Your task to perform on an android device: Open ESPN.com Image 0: 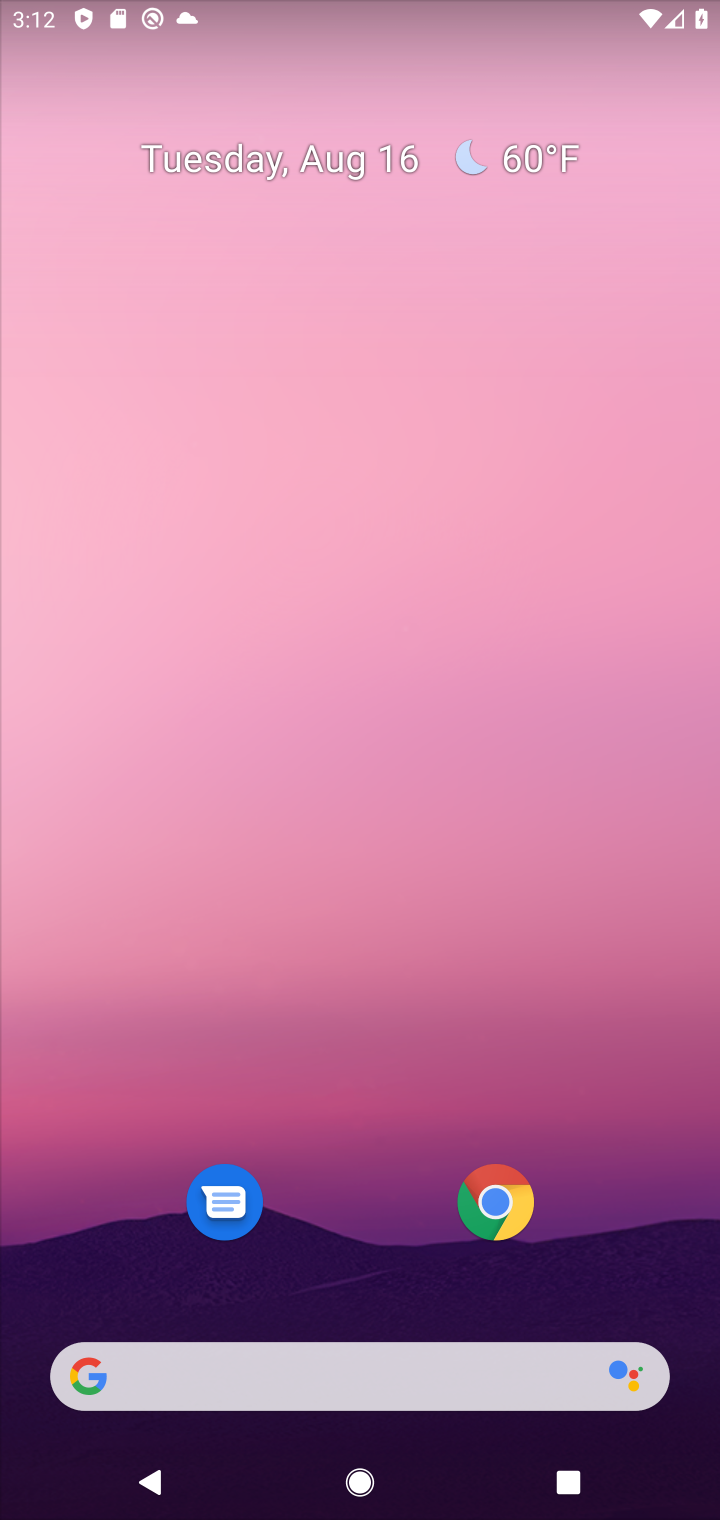
Step 0: drag from (403, 983) to (389, 312)
Your task to perform on an android device: Open ESPN.com Image 1: 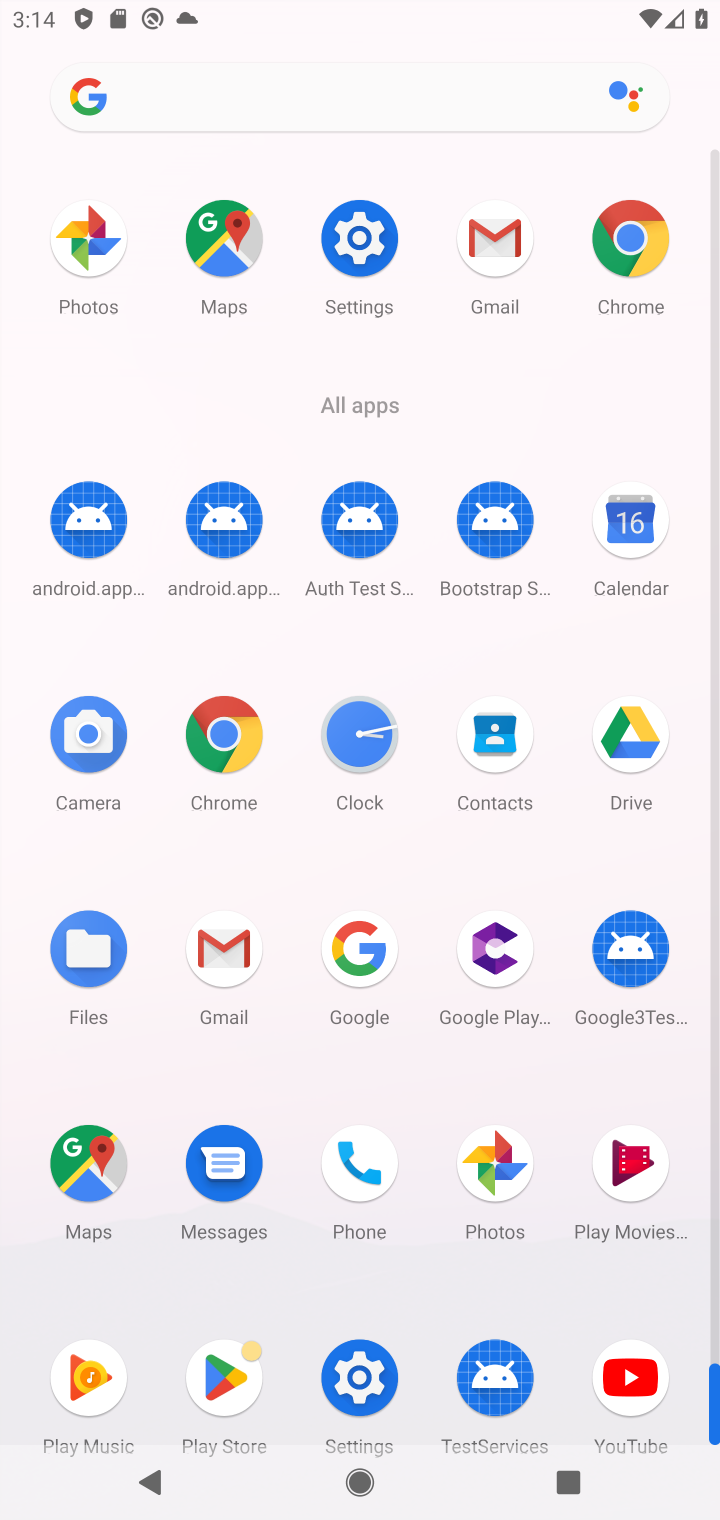
Step 1: click (627, 283)
Your task to perform on an android device: Open ESPN.com Image 2: 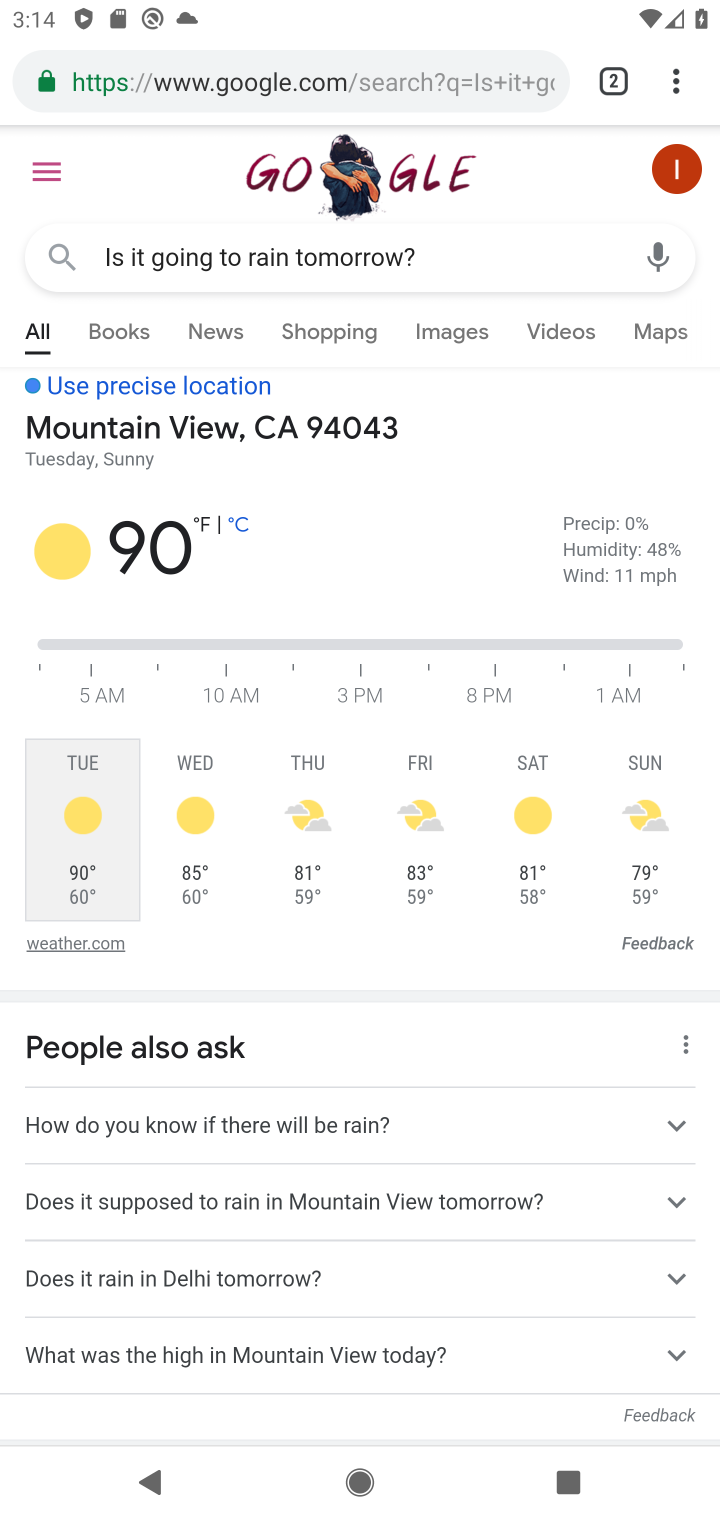
Step 2: click (612, 97)
Your task to perform on an android device: Open ESPN.com Image 3: 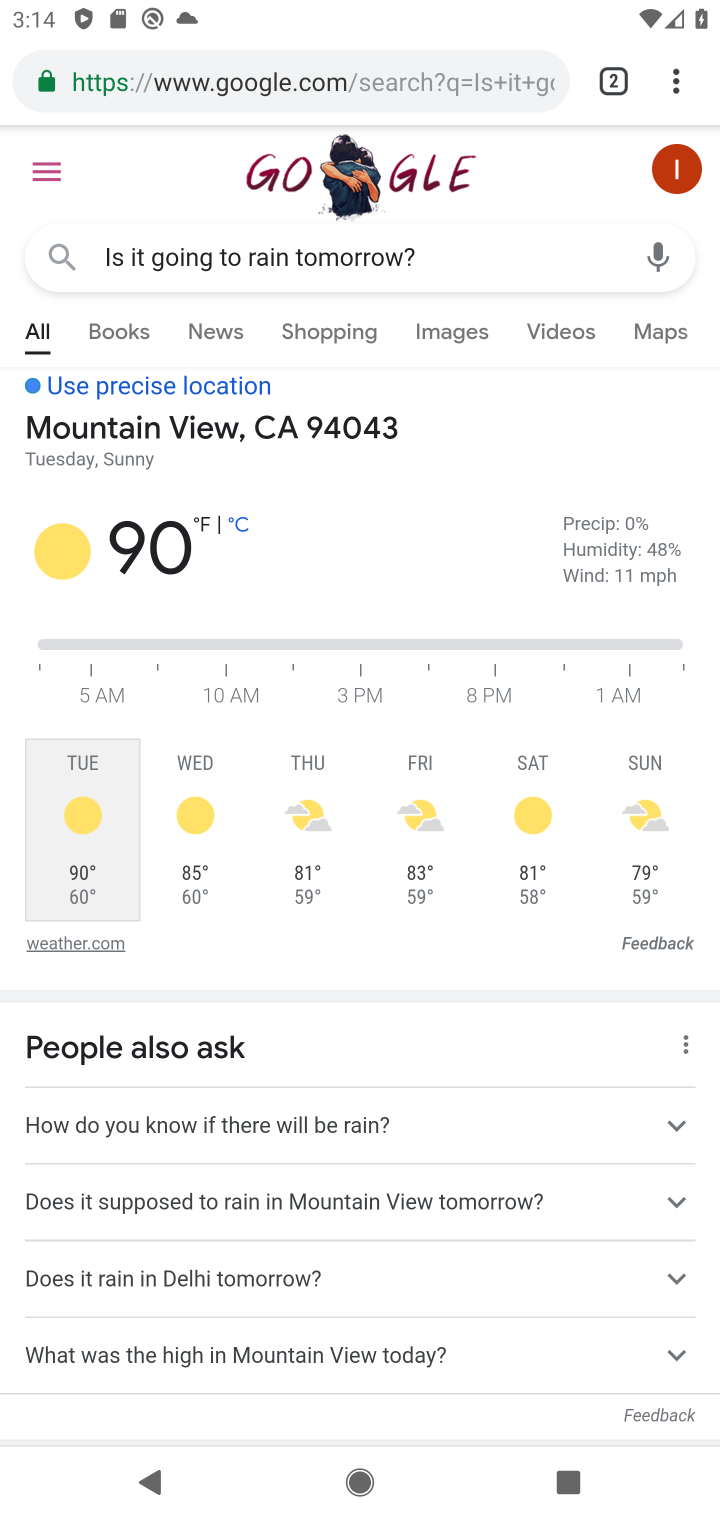
Step 3: click (612, 94)
Your task to perform on an android device: Open ESPN.com Image 4: 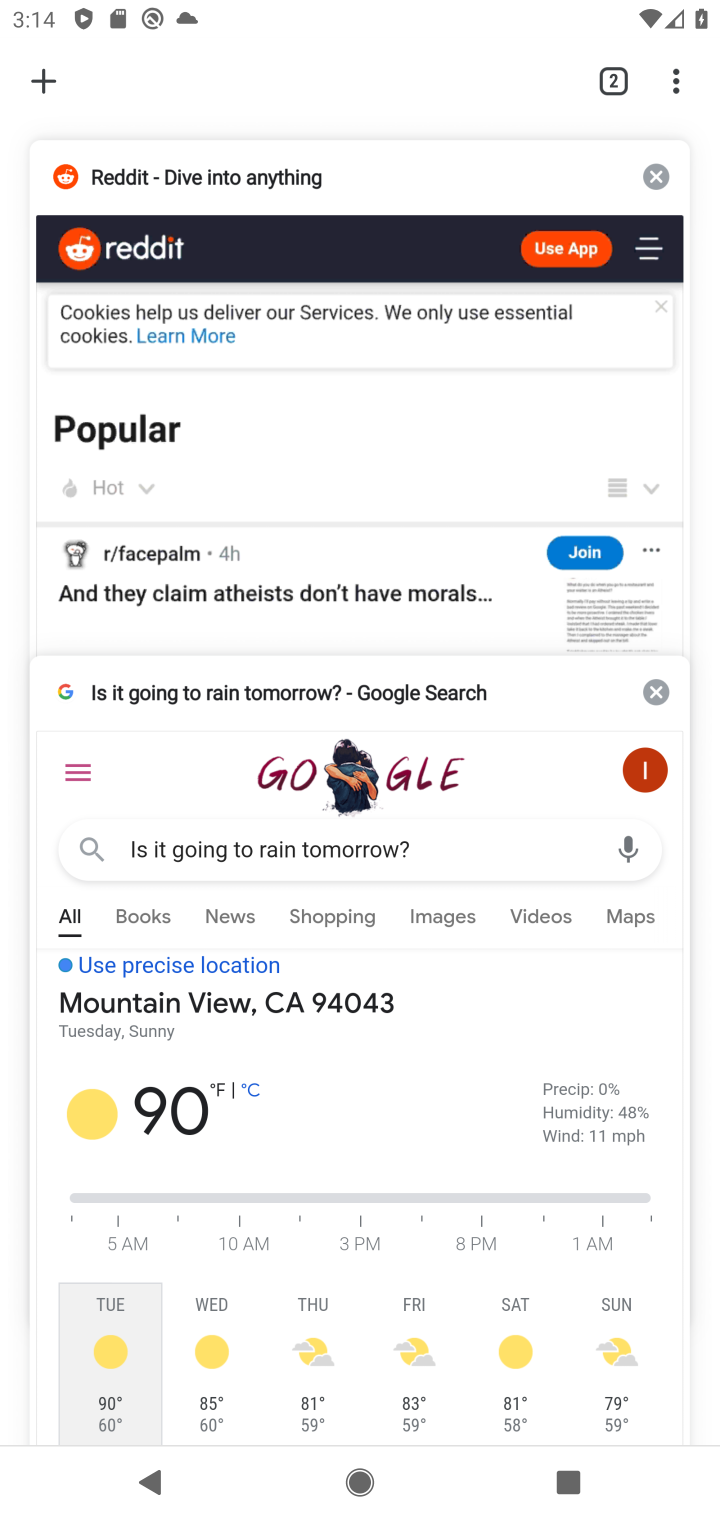
Step 4: click (44, 85)
Your task to perform on an android device: Open ESPN.com Image 5: 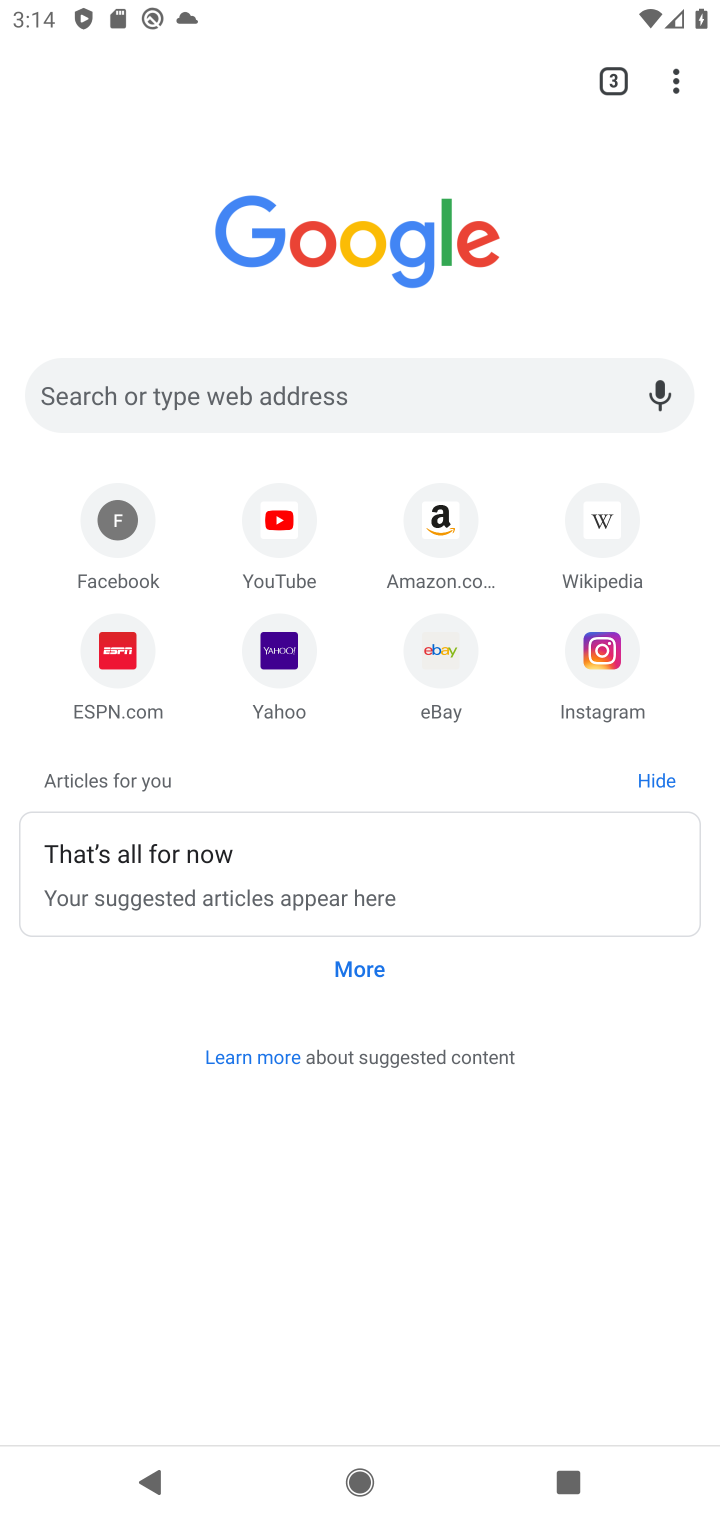
Step 5: click (118, 670)
Your task to perform on an android device: Open ESPN.com Image 6: 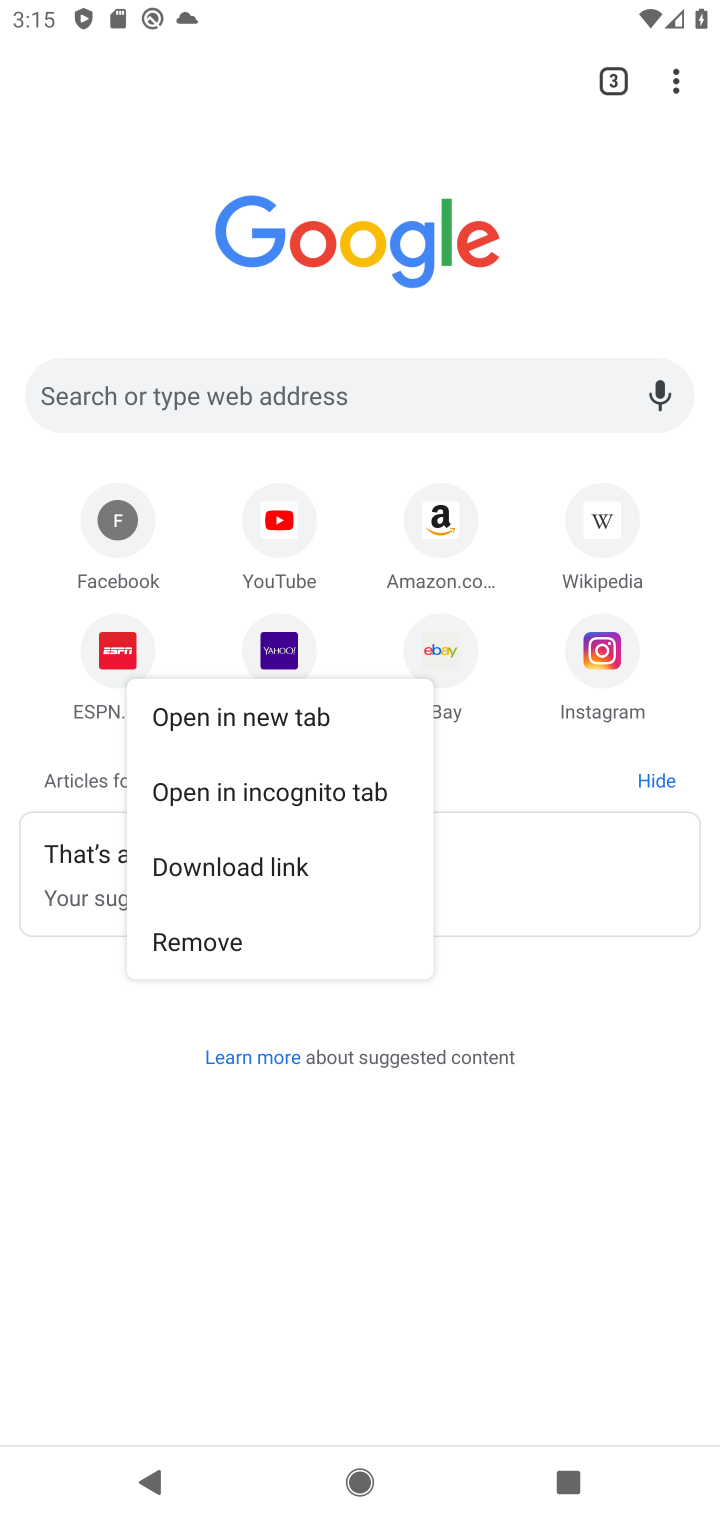
Step 6: click (110, 652)
Your task to perform on an android device: Open ESPN.com Image 7: 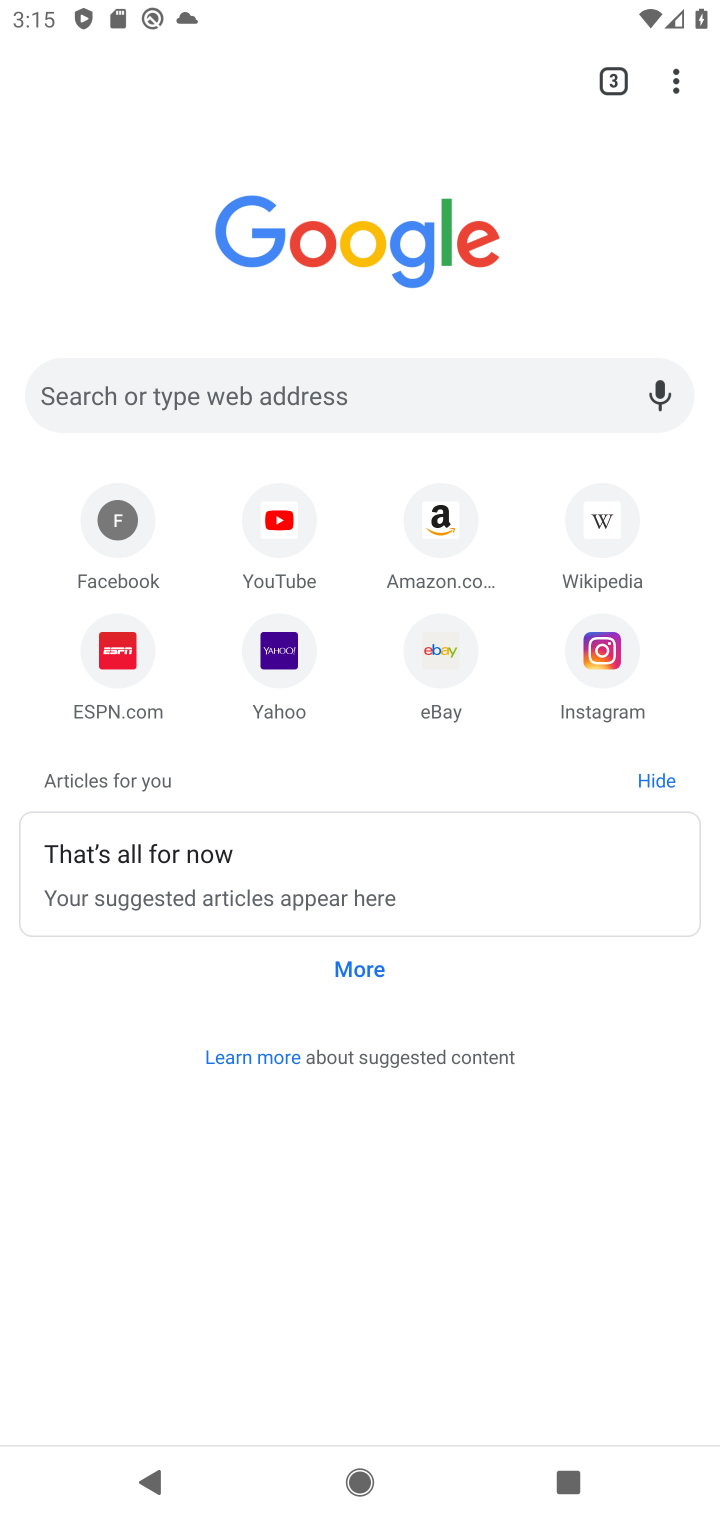
Step 7: click (110, 652)
Your task to perform on an android device: Open ESPN.com Image 8: 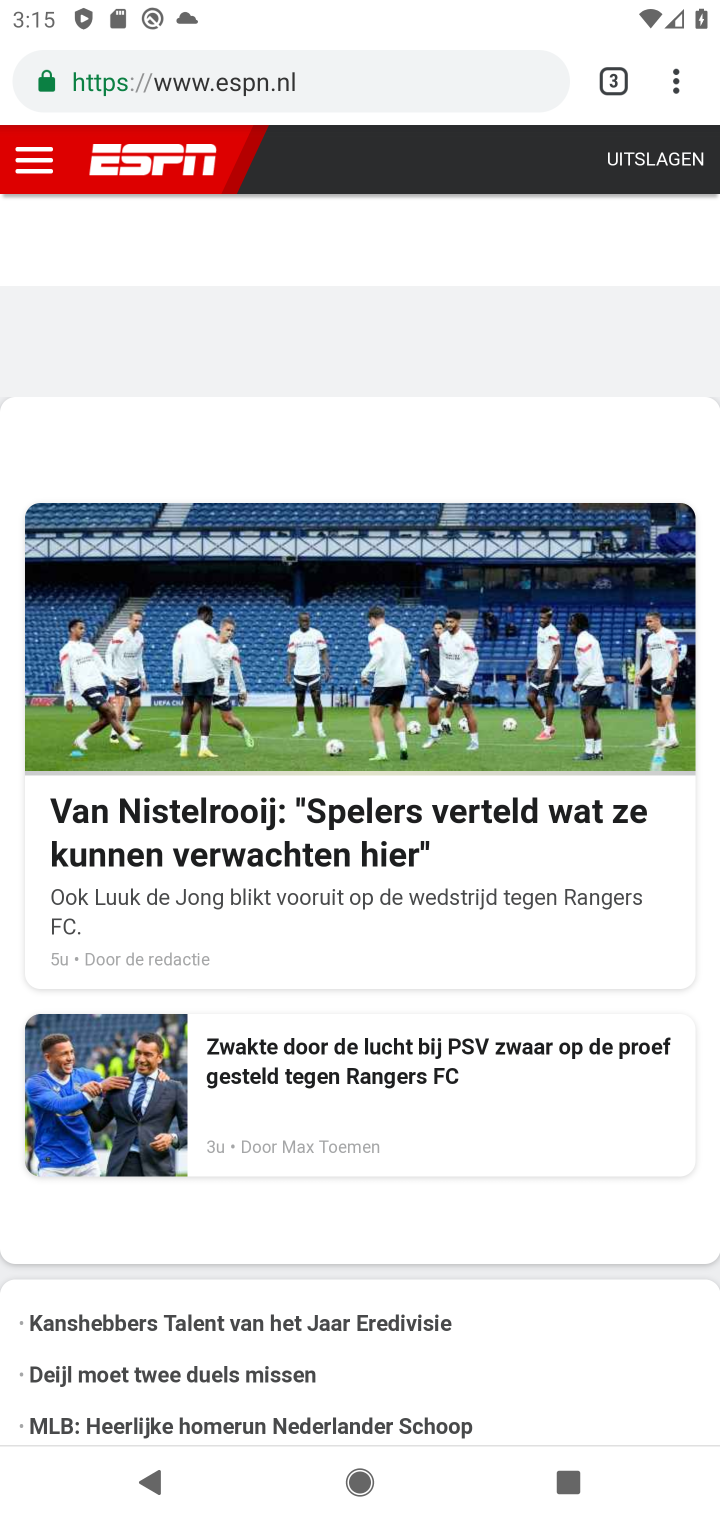
Step 8: task complete